Your task to perform on an android device: Open Google Chrome Image 0: 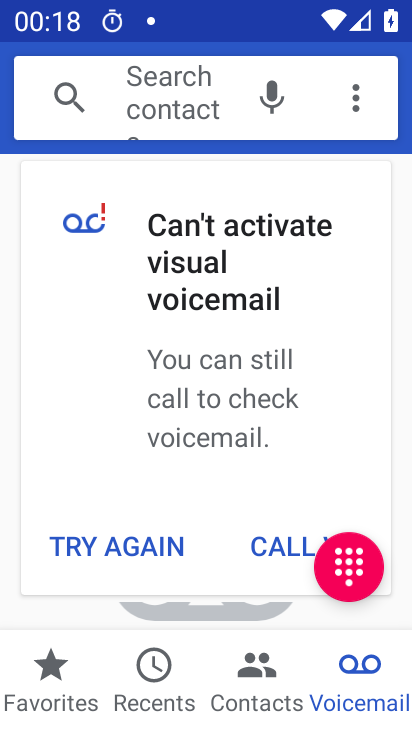
Step 0: press home button
Your task to perform on an android device: Open Google Chrome Image 1: 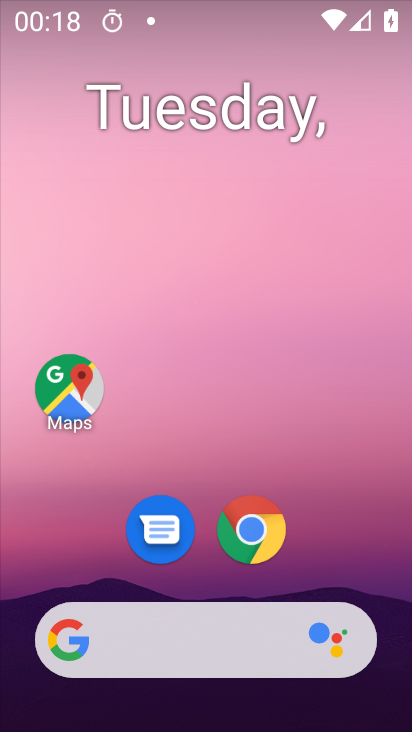
Step 1: drag from (350, 535) to (411, 322)
Your task to perform on an android device: Open Google Chrome Image 2: 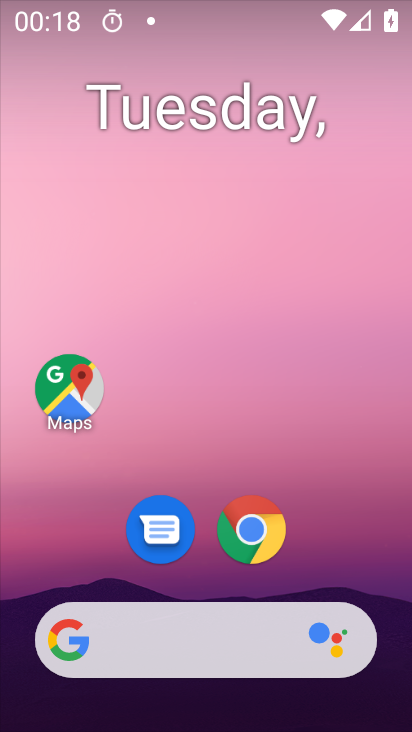
Step 2: click (256, 538)
Your task to perform on an android device: Open Google Chrome Image 3: 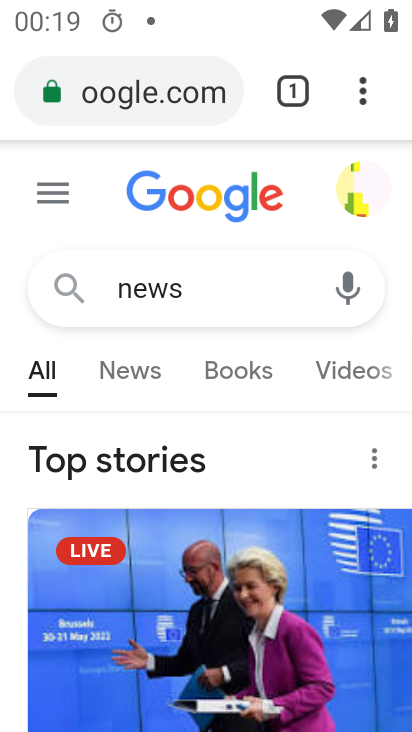
Step 3: task complete